Your task to perform on an android device: toggle wifi Image 0: 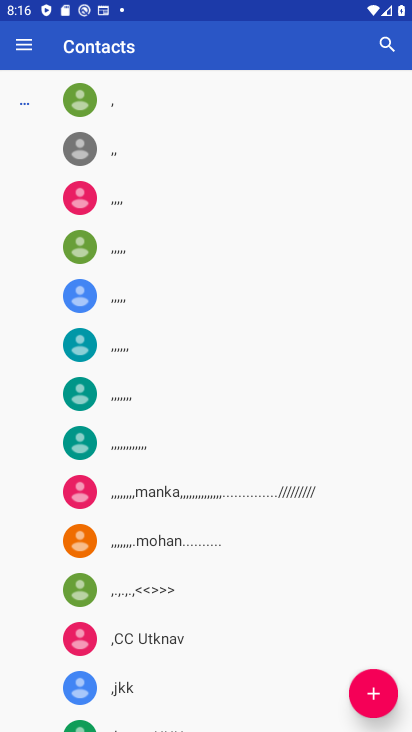
Step 0: press home button
Your task to perform on an android device: toggle wifi Image 1: 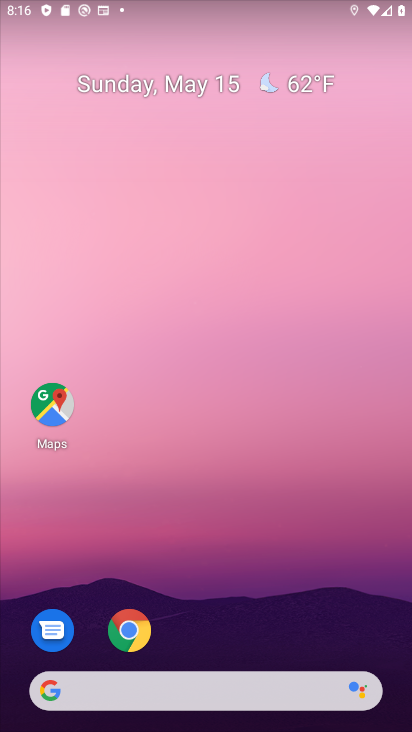
Step 1: drag from (261, 629) to (215, 13)
Your task to perform on an android device: toggle wifi Image 2: 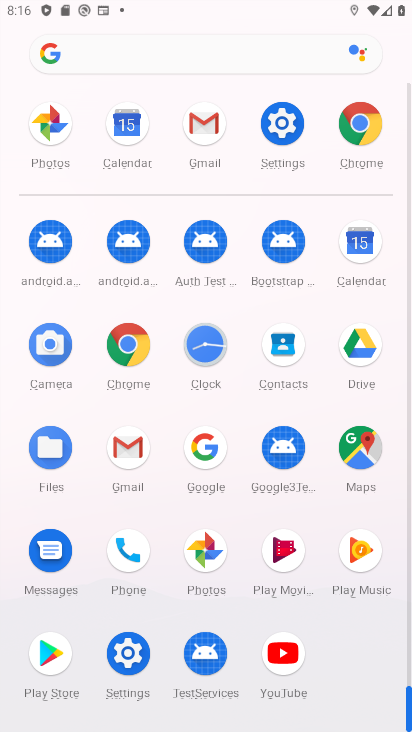
Step 2: click (279, 156)
Your task to perform on an android device: toggle wifi Image 3: 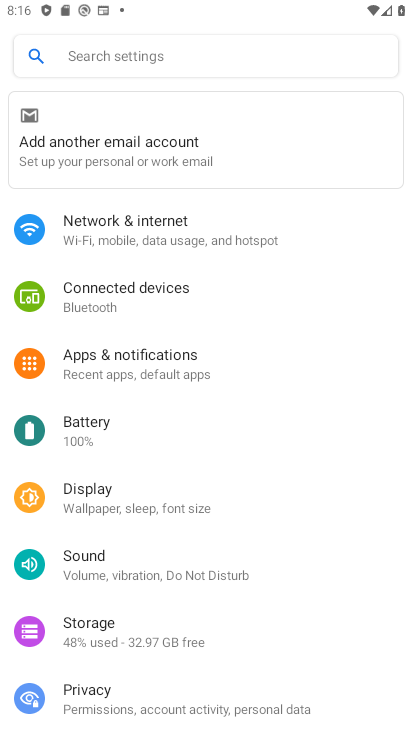
Step 3: click (140, 228)
Your task to perform on an android device: toggle wifi Image 4: 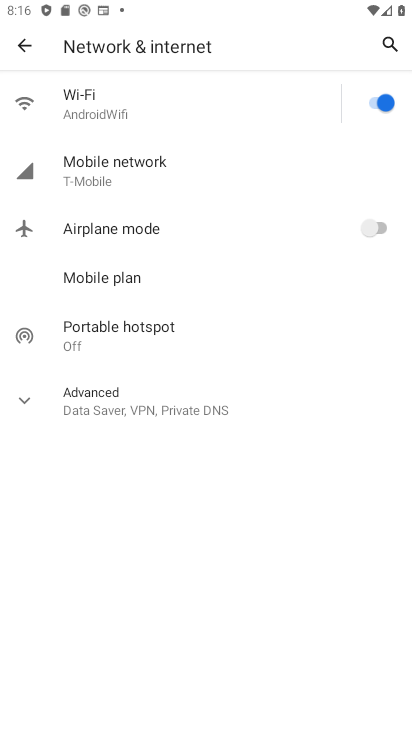
Step 4: click (373, 101)
Your task to perform on an android device: toggle wifi Image 5: 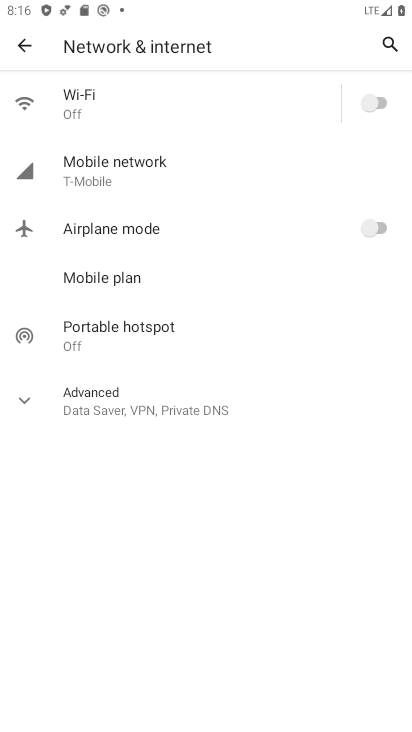
Step 5: task complete